Your task to perform on an android device: turn off wifi Image 0: 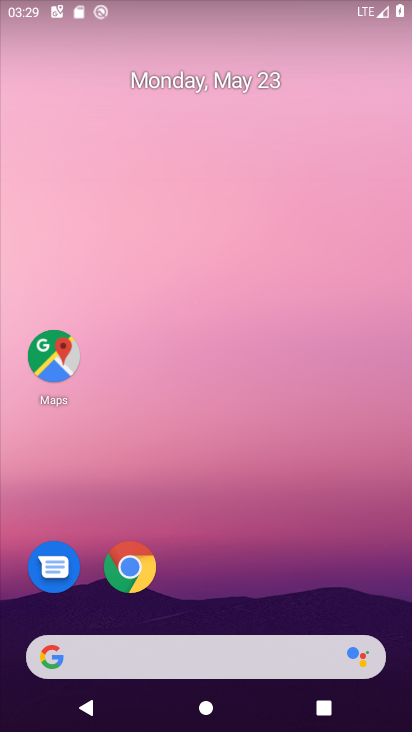
Step 0: drag from (109, 7) to (189, 353)
Your task to perform on an android device: turn off wifi Image 1: 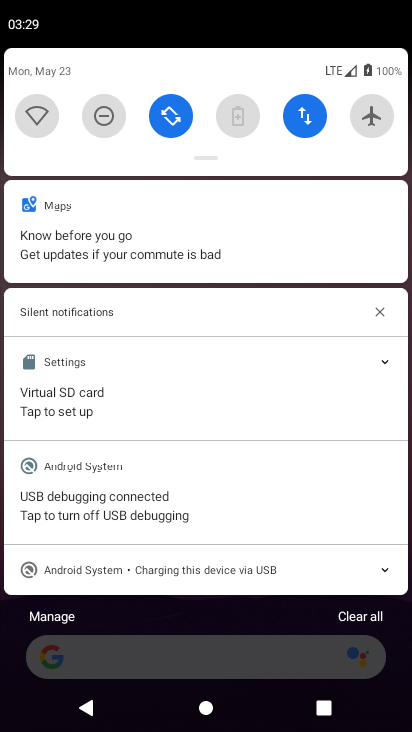
Step 1: task complete